Your task to perform on an android device: turn on priority inbox in the gmail app Image 0: 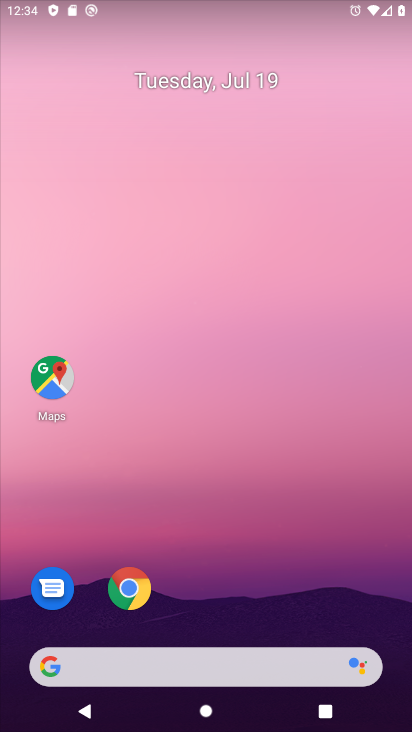
Step 0: drag from (255, 542) to (262, 176)
Your task to perform on an android device: turn on priority inbox in the gmail app Image 1: 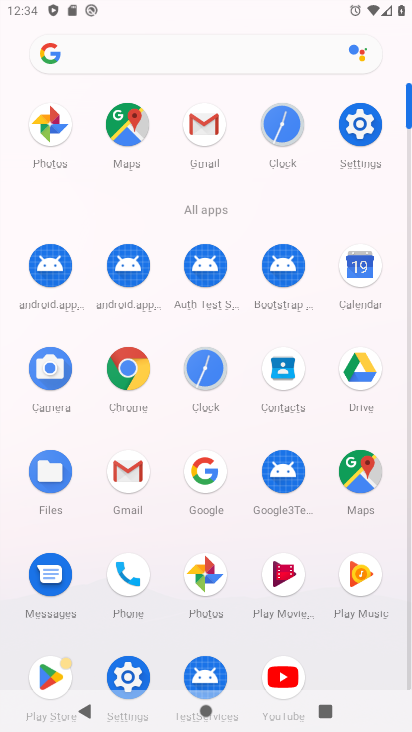
Step 1: click (207, 118)
Your task to perform on an android device: turn on priority inbox in the gmail app Image 2: 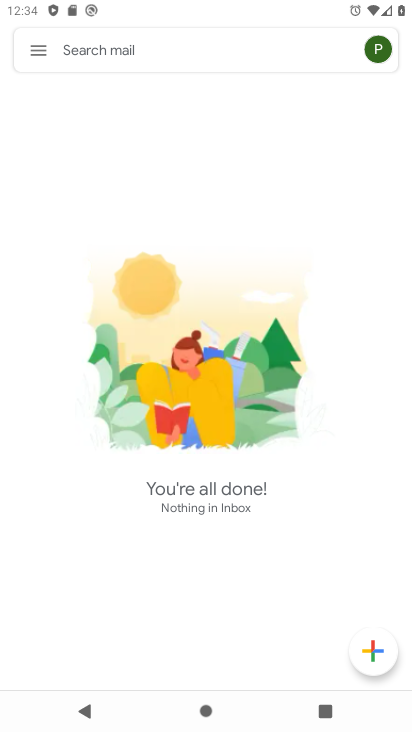
Step 2: click (40, 49)
Your task to perform on an android device: turn on priority inbox in the gmail app Image 3: 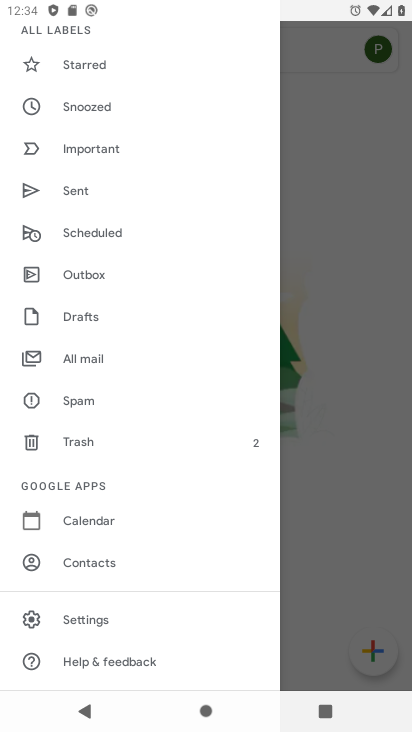
Step 3: click (76, 615)
Your task to perform on an android device: turn on priority inbox in the gmail app Image 4: 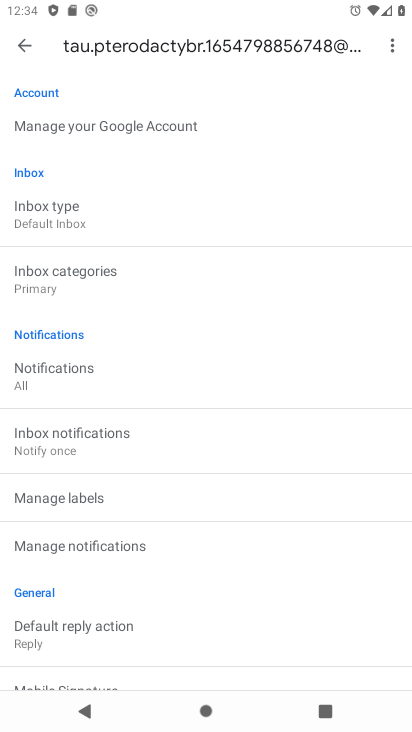
Step 4: click (65, 213)
Your task to perform on an android device: turn on priority inbox in the gmail app Image 5: 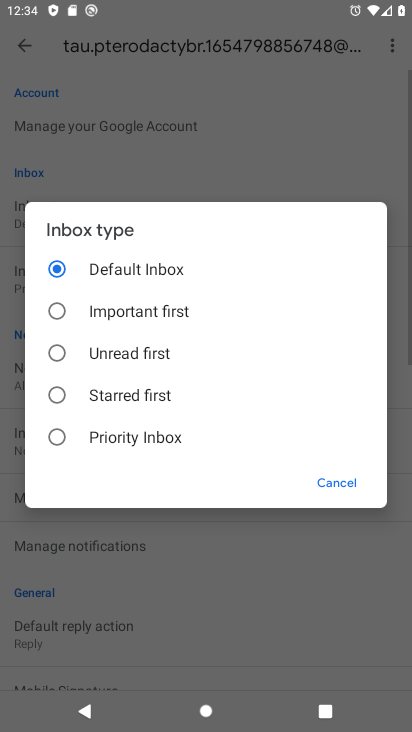
Step 5: click (136, 443)
Your task to perform on an android device: turn on priority inbox in the gmail app Image 6: 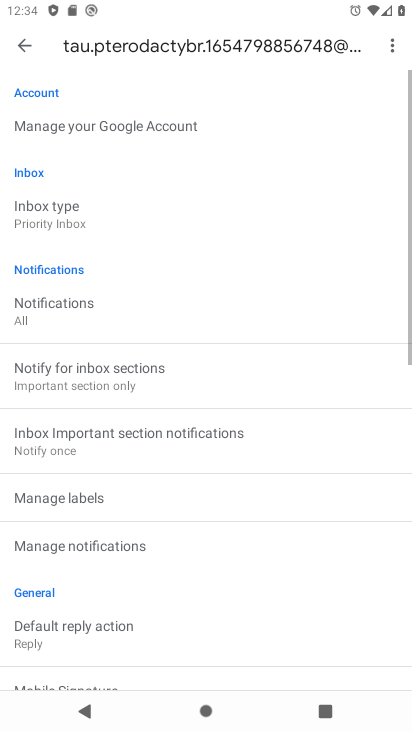
Step 6: task complete